Your task to perform on an android device: snooze an email in the gmail app Image 0: 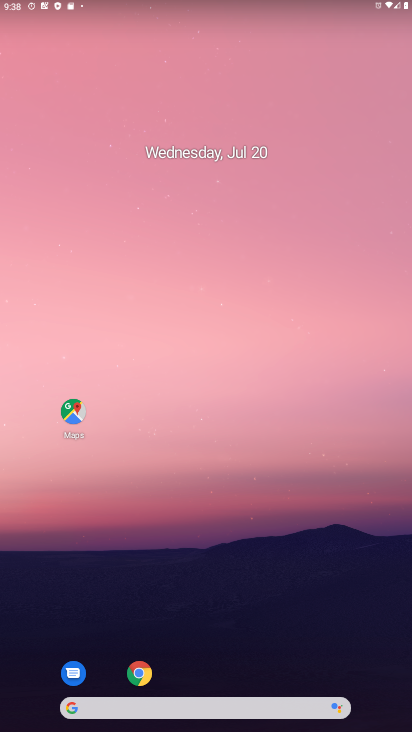
Step 0: drag from (218, 726) to (184, 66)
Your task to perform on an android device: snooze an email in the gmail app Image 1: 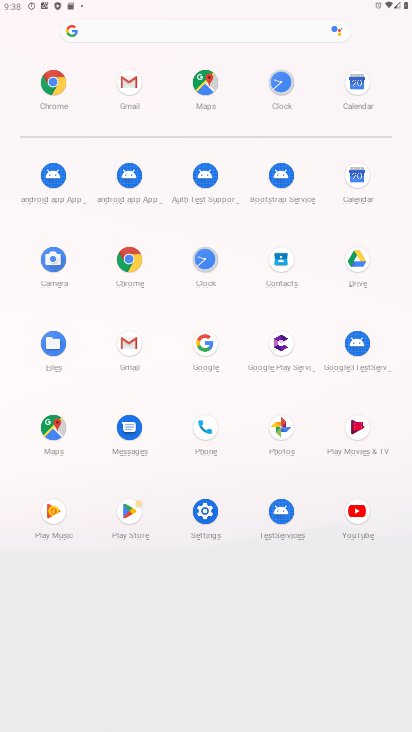
Step 1: click (125, 341)
Your task to perform on an android device: snooze an email in the gmail app Image 2: 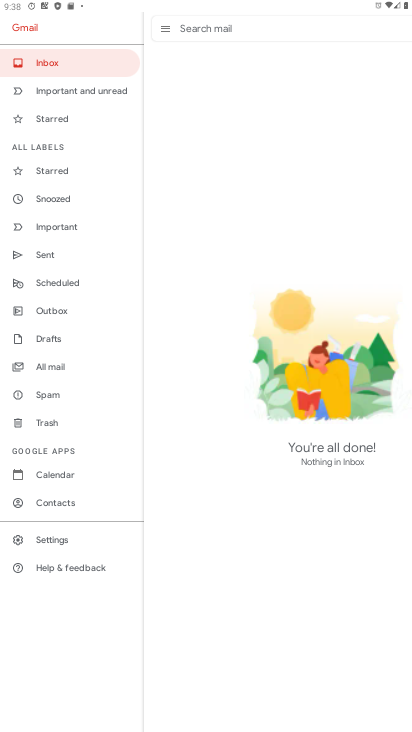
Step 2: task complete